Your task to perform on an android device: turn off sleep mode Image 0: 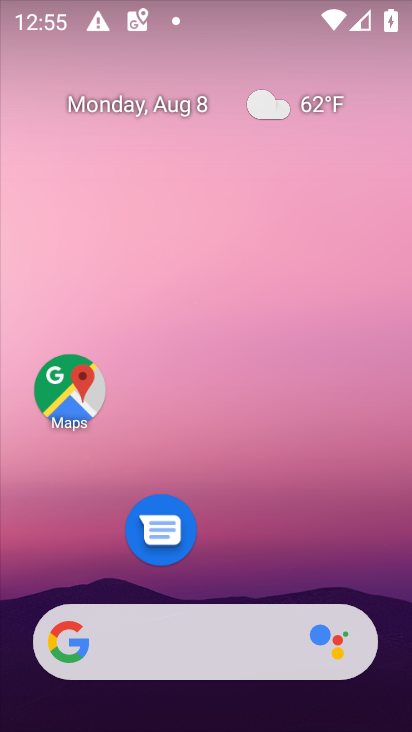
Step 0: drag from (221, 392) to (203, 177)
Your task to perform on an android device: turn off sleep mode Image 1: 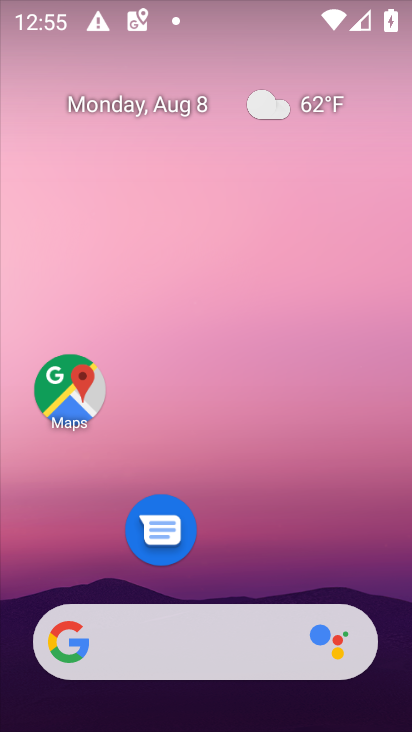
Step 1: drag from (227, 557) to (219, 63)
Your task to perform on an android device: turn off sleep mode Image 2: 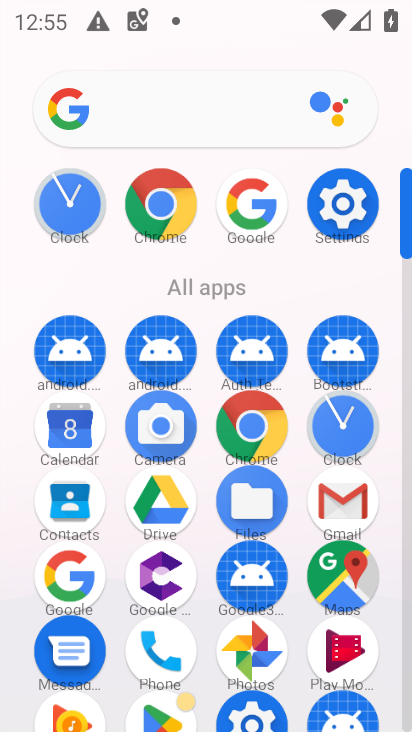
Step 2: click (339, 199)
Your task to perform on an android device: turn off sleep mode Image 3: 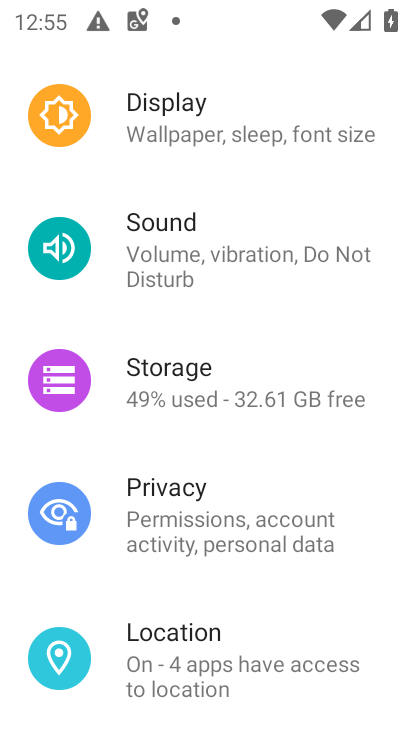
Step 3: click (262, 143)
Your task to perform on an android device: turn off sleep mode Image 4: 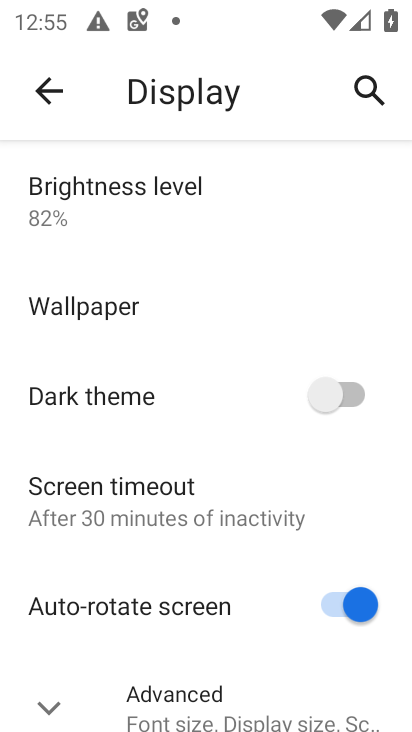
Step 4: task complete